Your task to perform on an android device: turn off javascript in the chrome app Image 0: 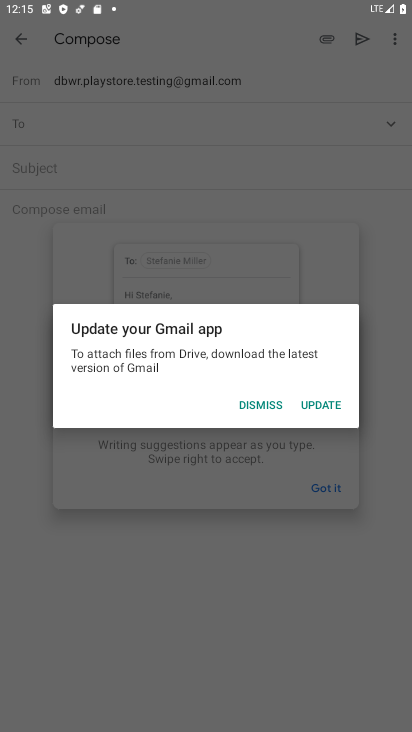
Step 0: press home button
Your task to perform on an android device: turn off javascript in the chrome app Image 1: 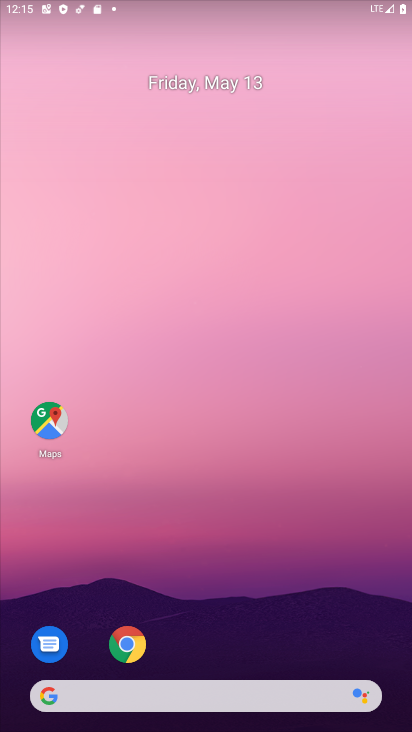
Step 1: drag from (322, 625) to (253, 39)
Your task to perform on an android device: turn off javascript in the chrome app Image 2: 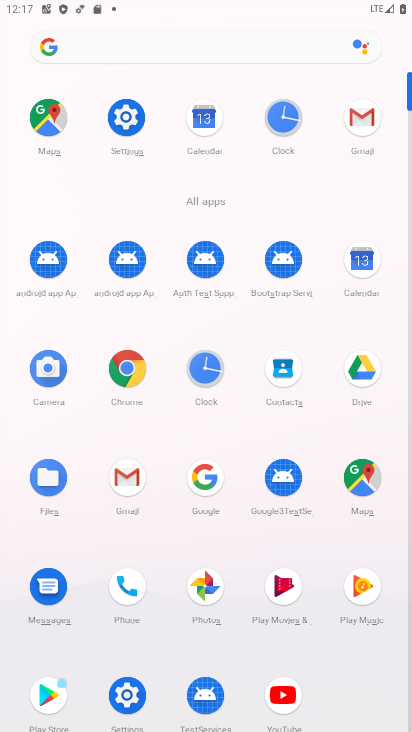
Step 2: click (127, 359)
Your task to perform on an android device: turn off javascript in the chrome app Image 3: 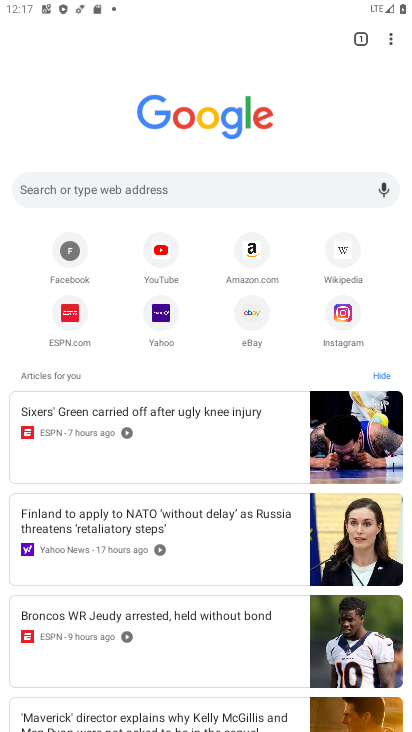
Step 3: click (391, 35)
Your task to perform on an android device: turn off javascript in the chrome app Image 4: 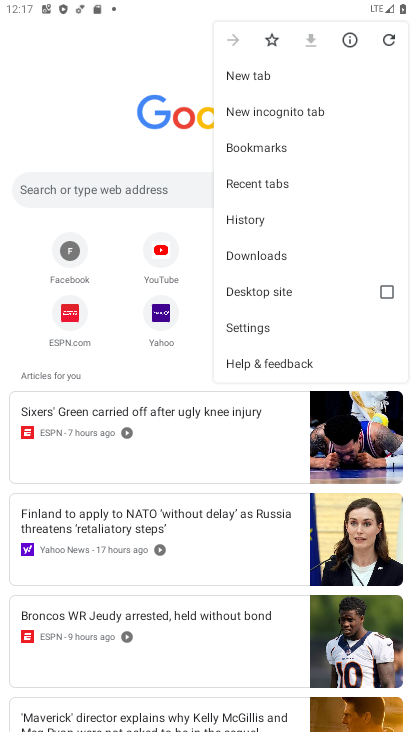
Step 4: click (266, 325)
Your task to perform on an android device: turn off javascript in the chrome app Image 5: 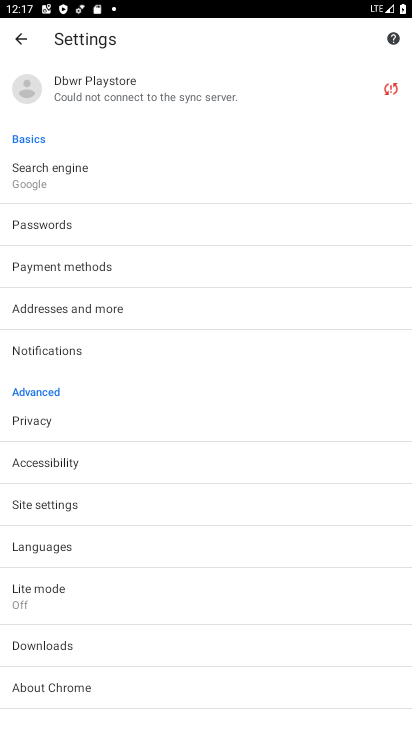
Step 5: click (129, 503)
Your task to perform on an android device: turn off javascript in the chrome app Image 6: 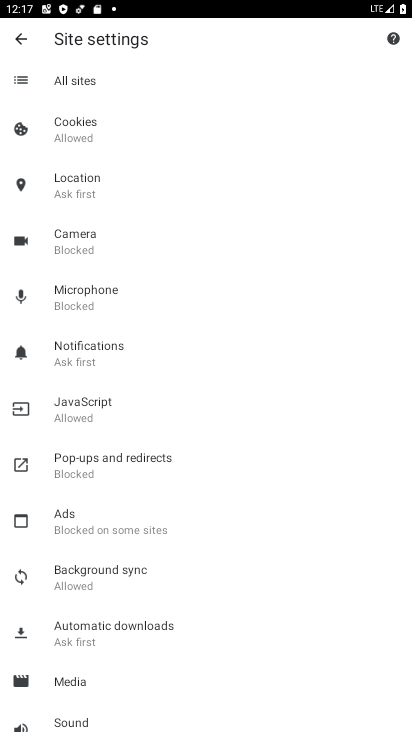
Step 6: click (132, 430)
Your task to perform on an android device: turn off javascript in the chrome app Image 7: 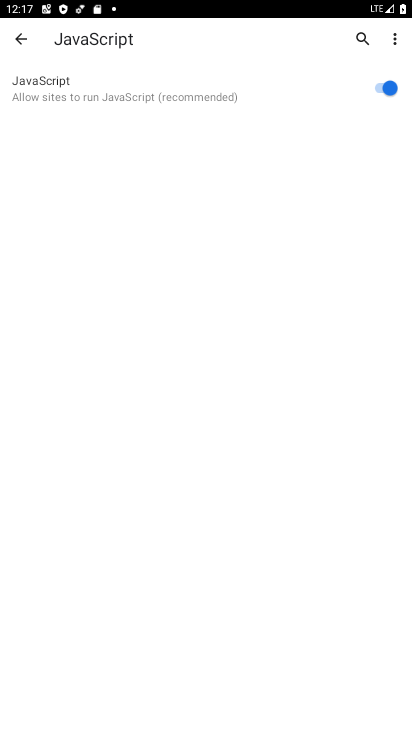
Step 7: click (364, 81)
Your task to perform on an android device: turn off javascript in the chrome app Image 8: 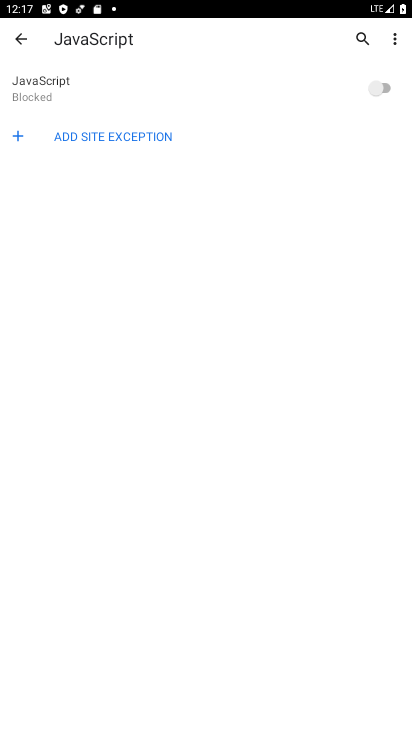
Step 8: task complete